Your task to perform on an android device: uninstall "Fetch Rewards" Image 0: 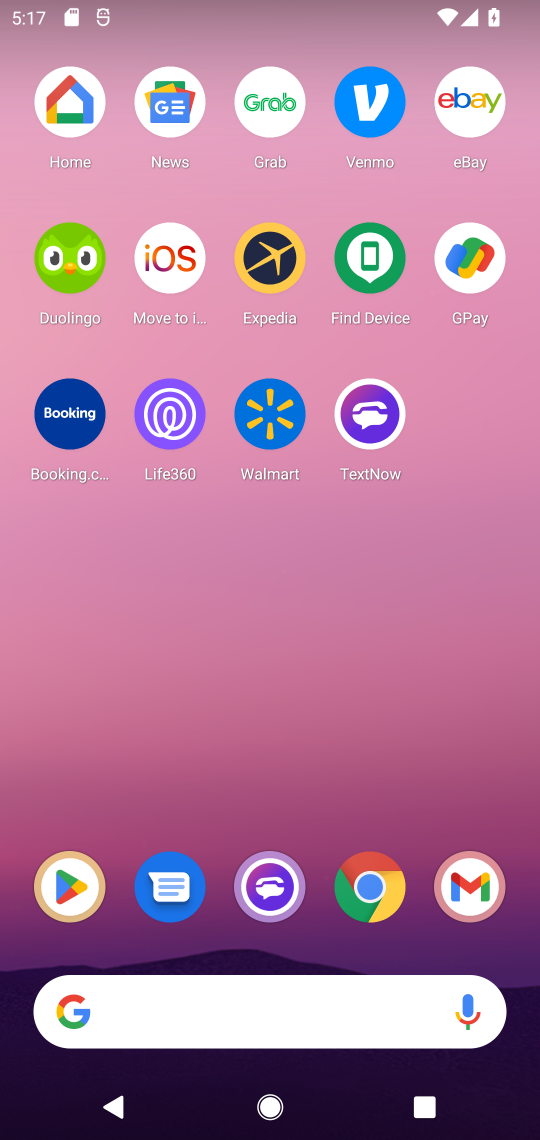
Step 0: click (18, 927)
Your task to perform on an android device: uninstall "Fetch Rewards" Image 1: 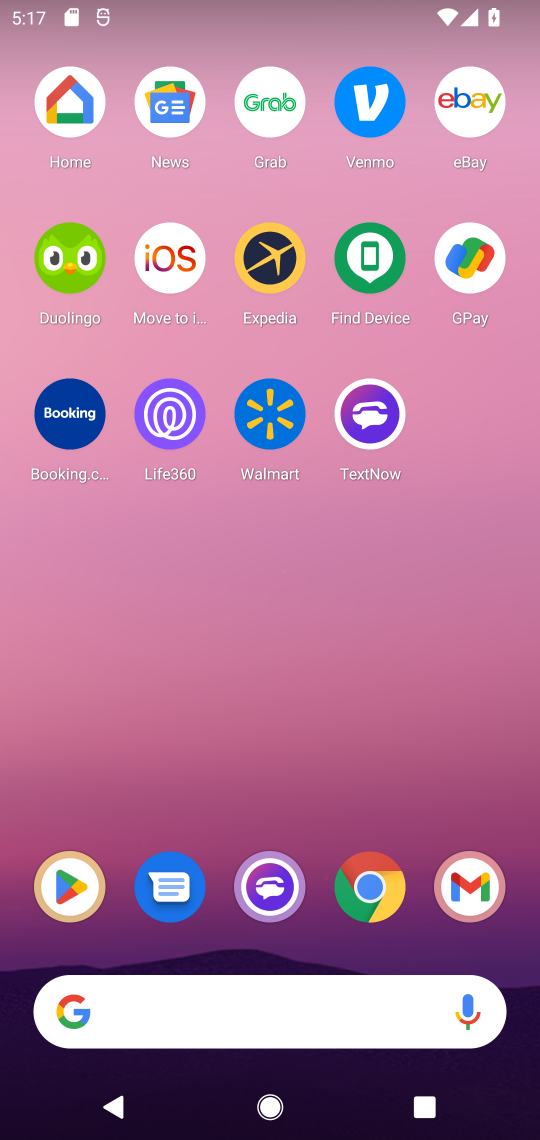
Step 1: click (42, 905)
Your task to perform on an android device: uninstall "Fetch Rewards" Image 2: 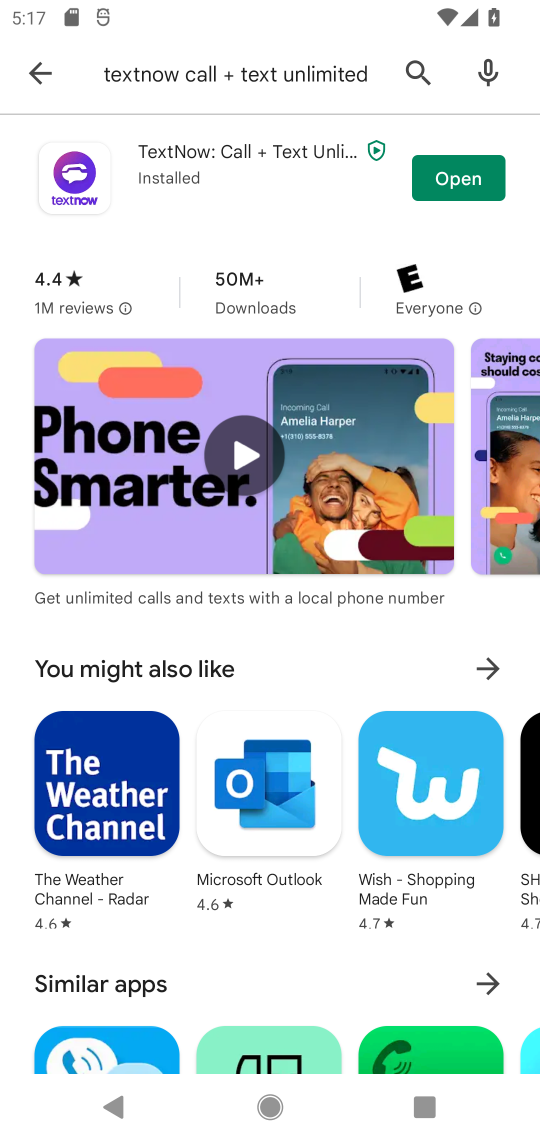
Step 2: click (47, 87)
Your task to perform on an android device: uninstall "Fetch Rewards" Image 3: 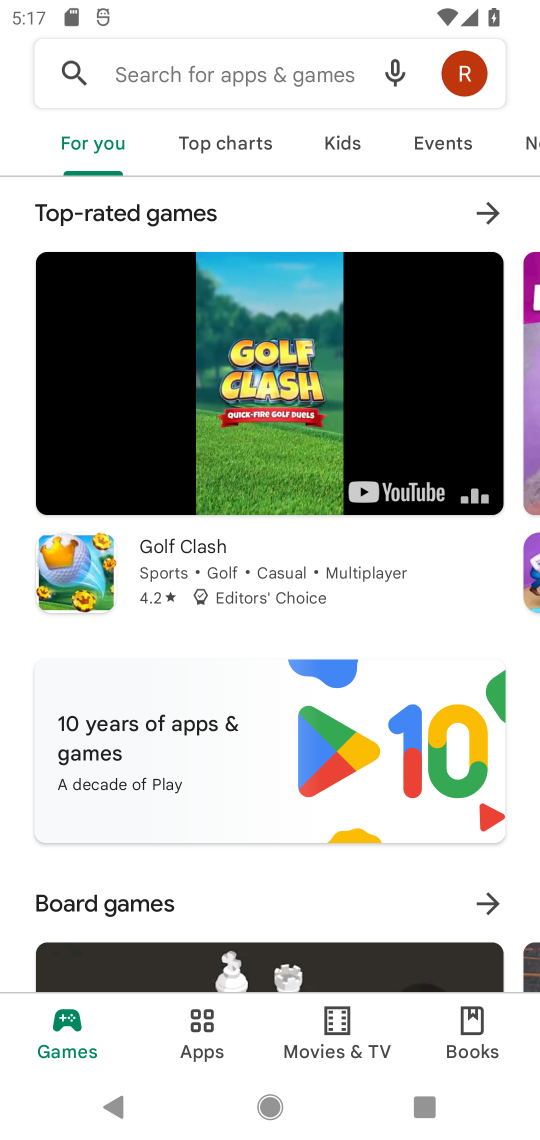
Step 3: click (109, 75)
Your task to perform on an android device: uninstall "Fetch Rewards" Image 4: 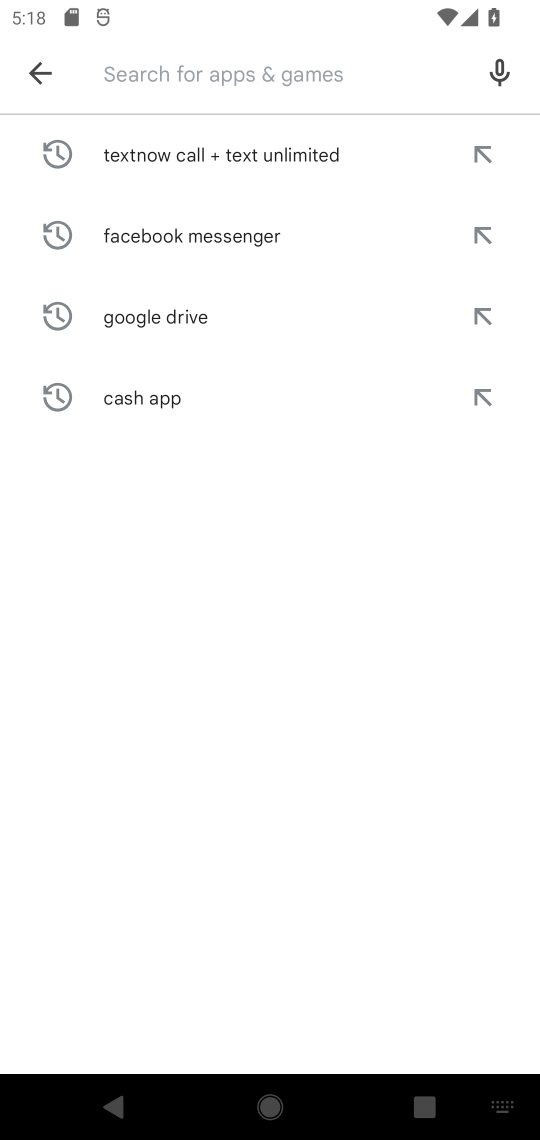
Step 4: type "Fetch Rewards"
Your task to perform on an android device: uninstall "Fetch Rewards" Image 5: 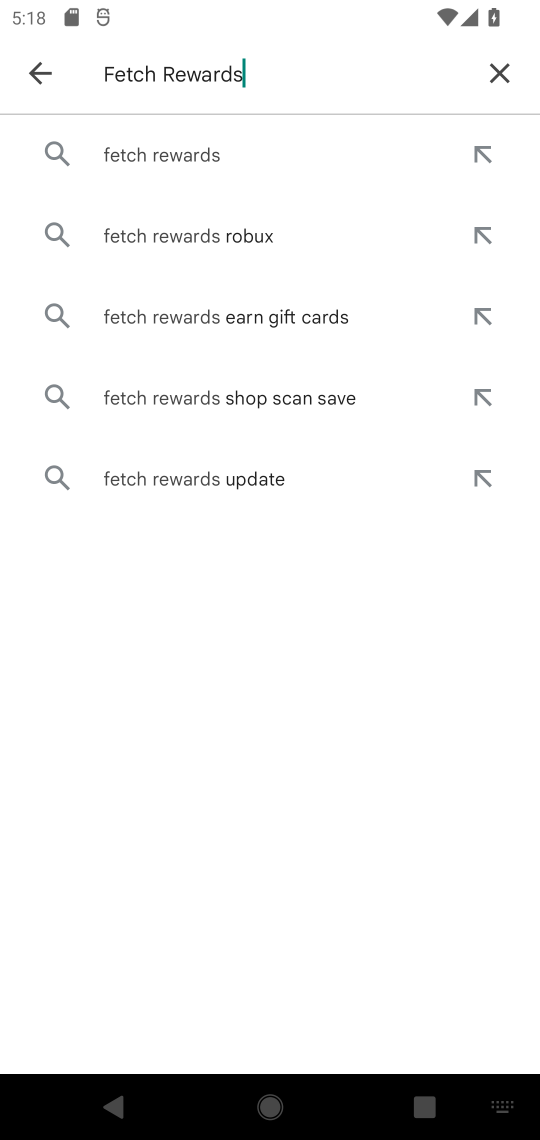
Step 5: click (89, 142)
Your task to perform on an android device: uninstall "Fetch Rewards" Image 6: 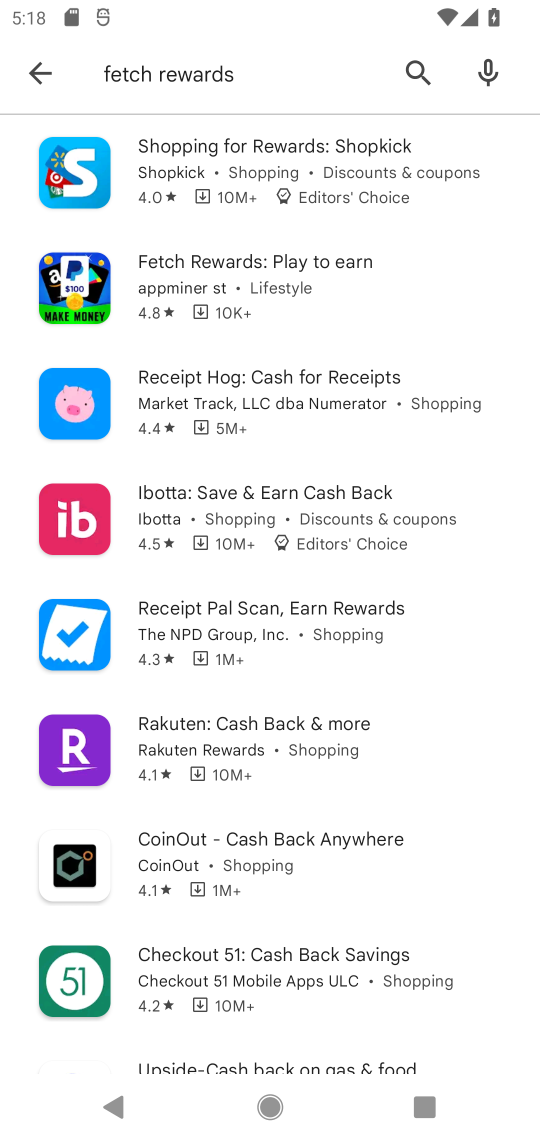
Step 6: click (158, 295)
Your task to perform on an android device: uninstall "Fetch Rewards" Image 7: 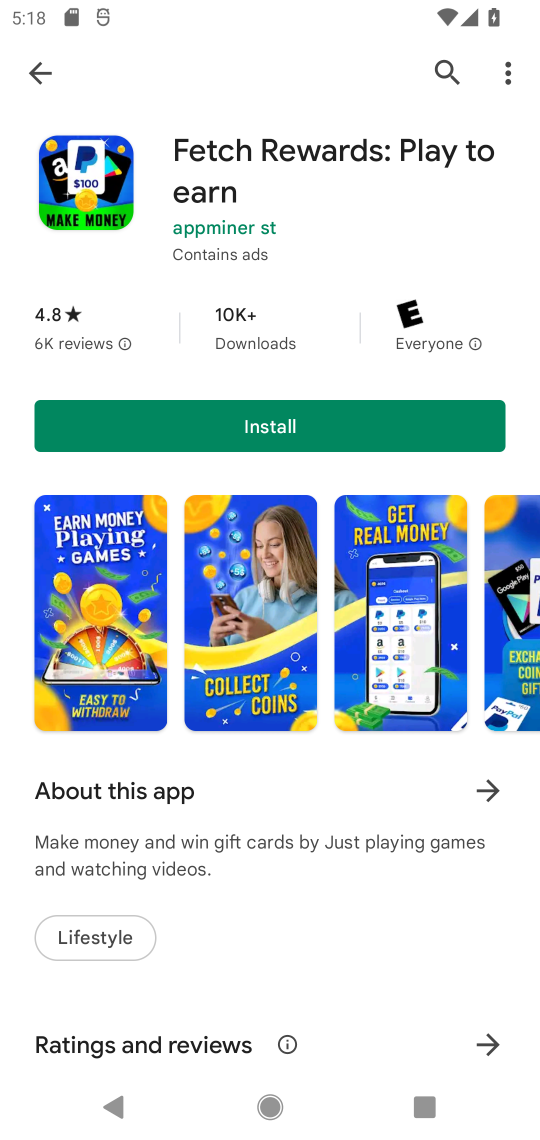
Step 7: task complete